Your task to perform on an android device: turn off location history Image 0: 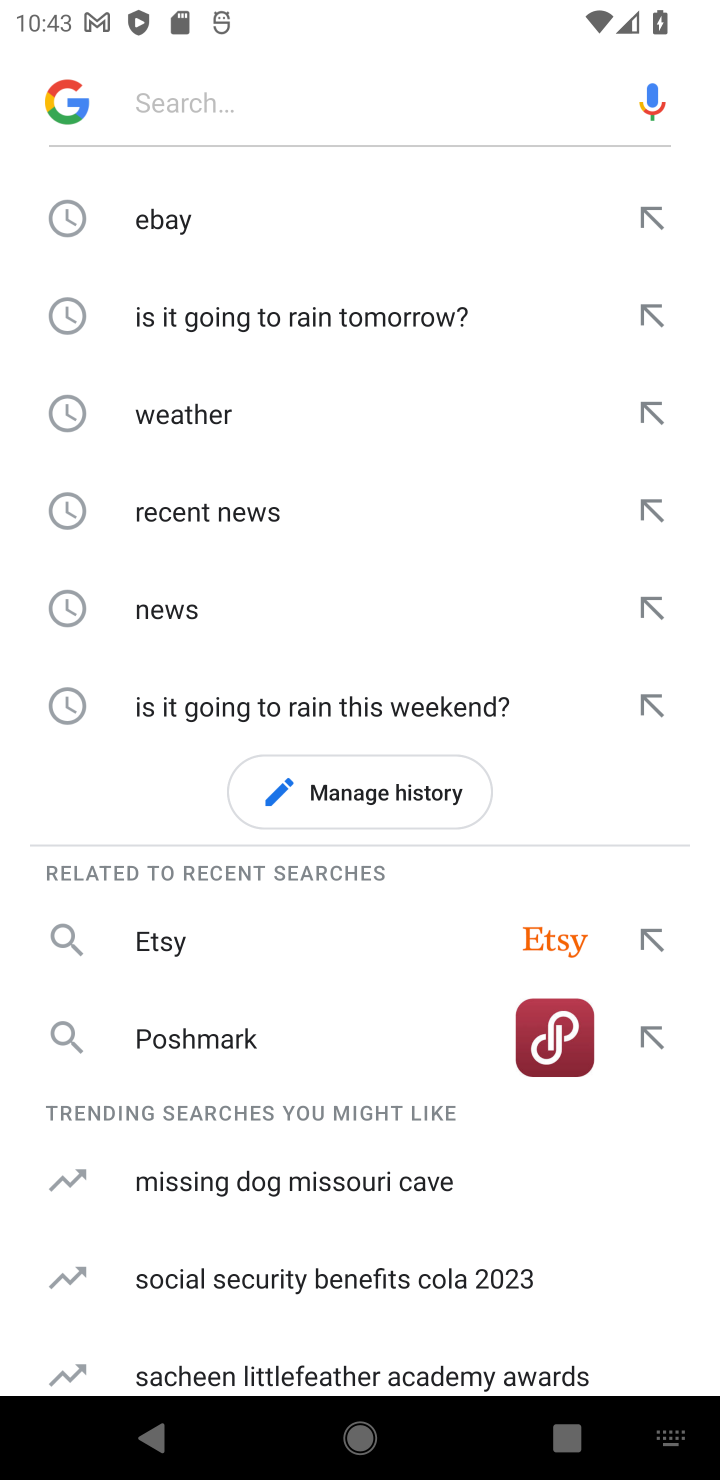
Step 0: press home button
Your task to perform on an android device: turn off location history Image 1: 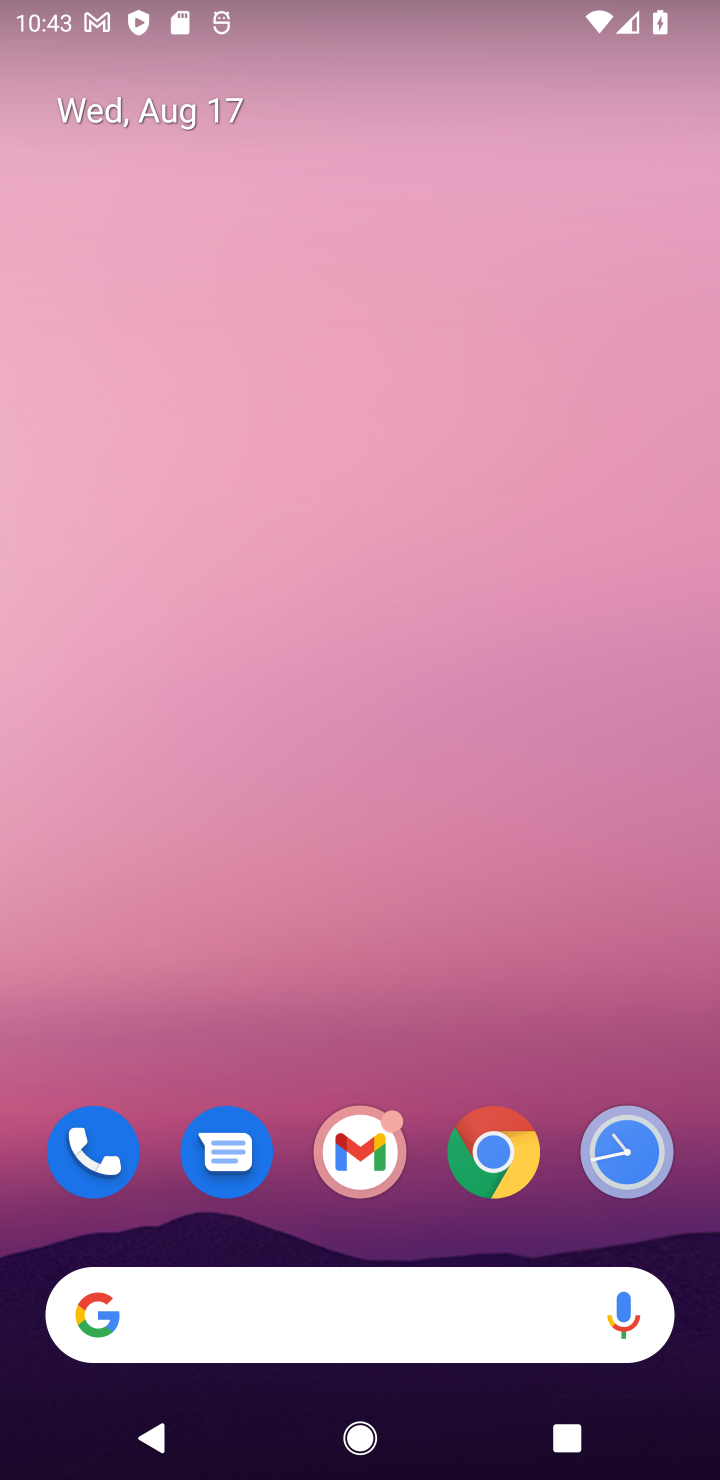
Step 1: drag from (581, 946) to (373, 0)
Your task to perform on an android device: turn off location history Image 2: 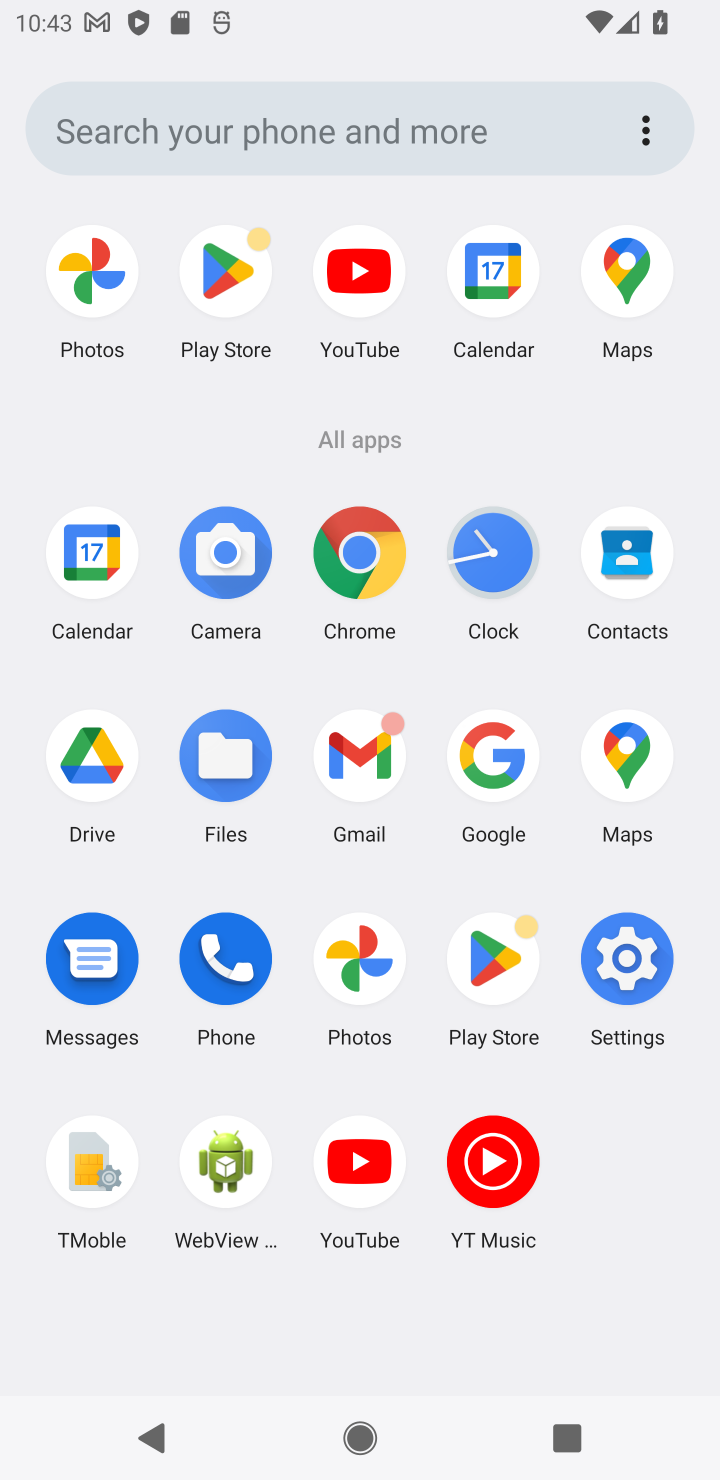
Step 2: click (646, 974)
Your task to perform on an android device: turn off location history Image 3: 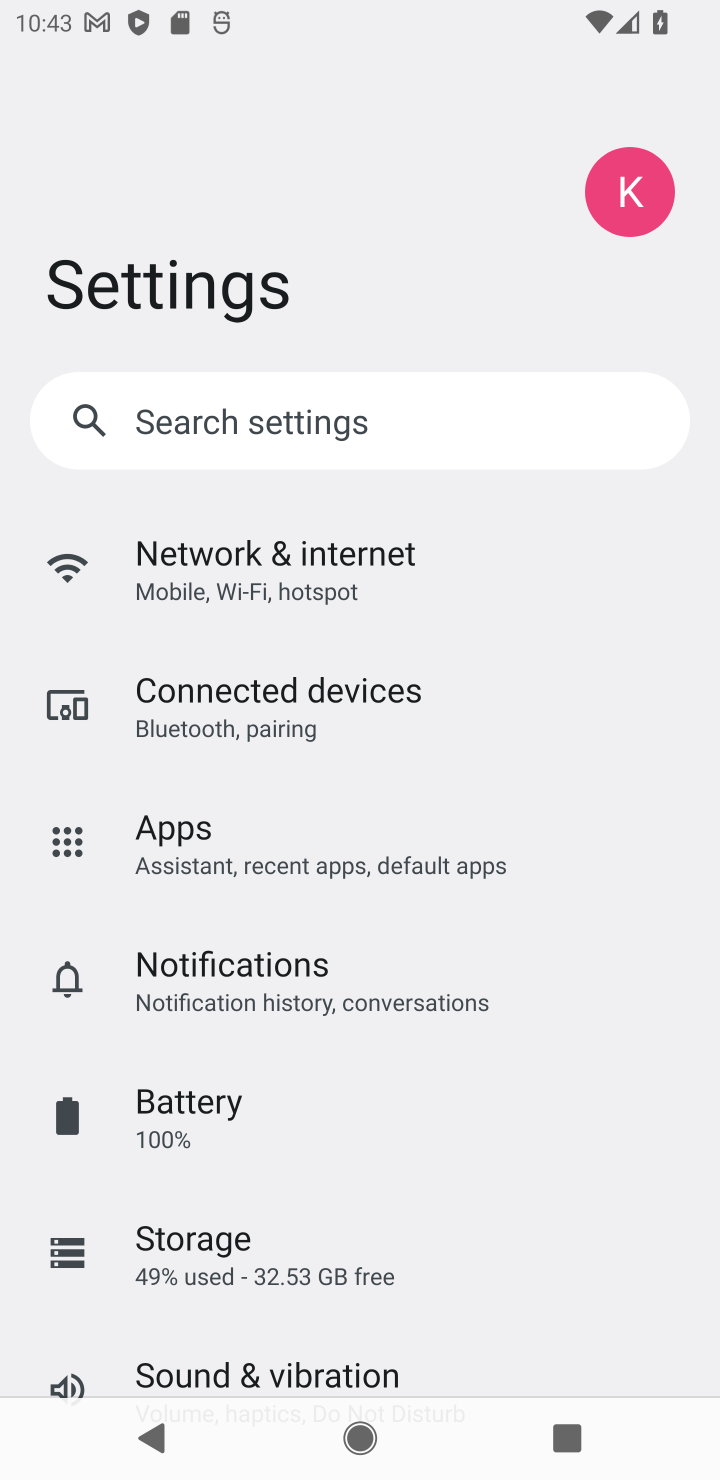
Step 3: drag from (360, 1258) to (261, 288)
Your task to perform on an android device: turn off location history Image 4: 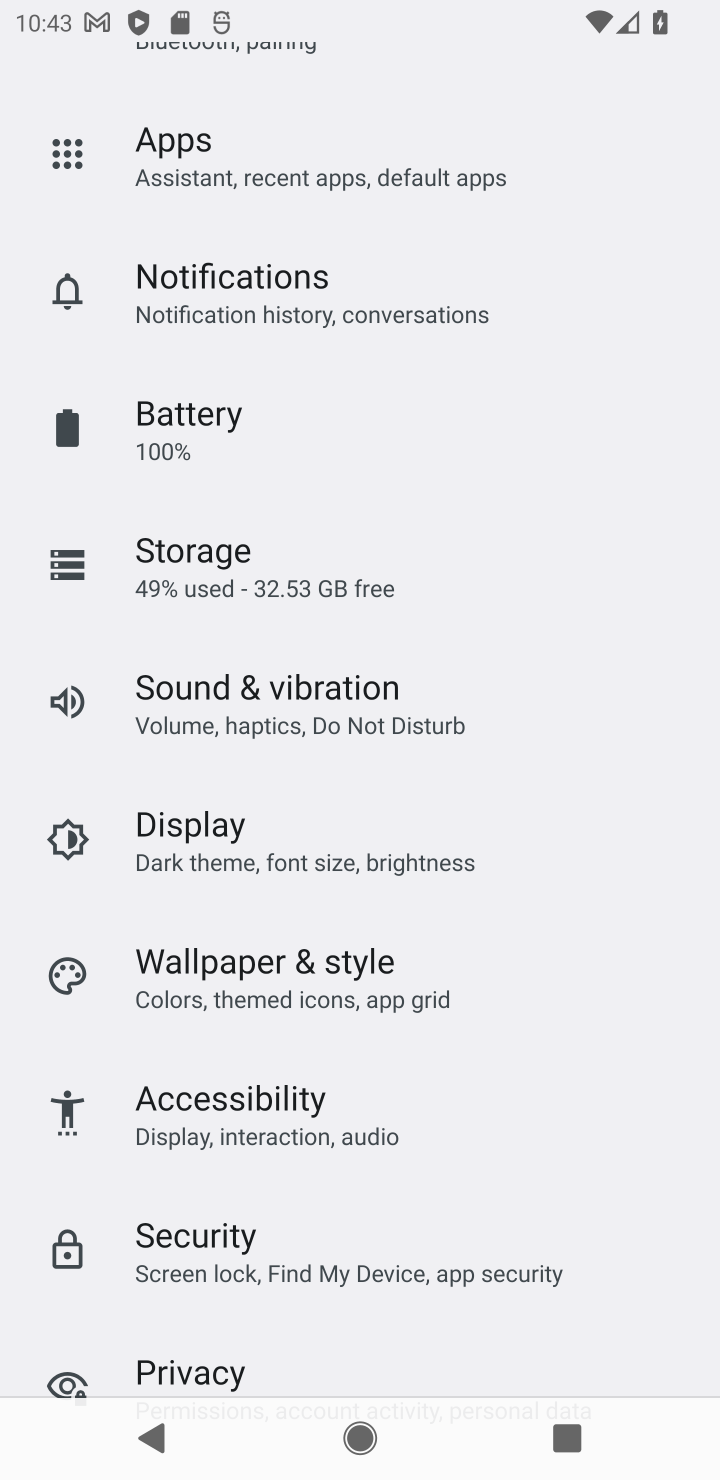
Step 4: drag from (263, 1125) to (248, 54)
Your task to perform on an android device: turn off location history Image 5: 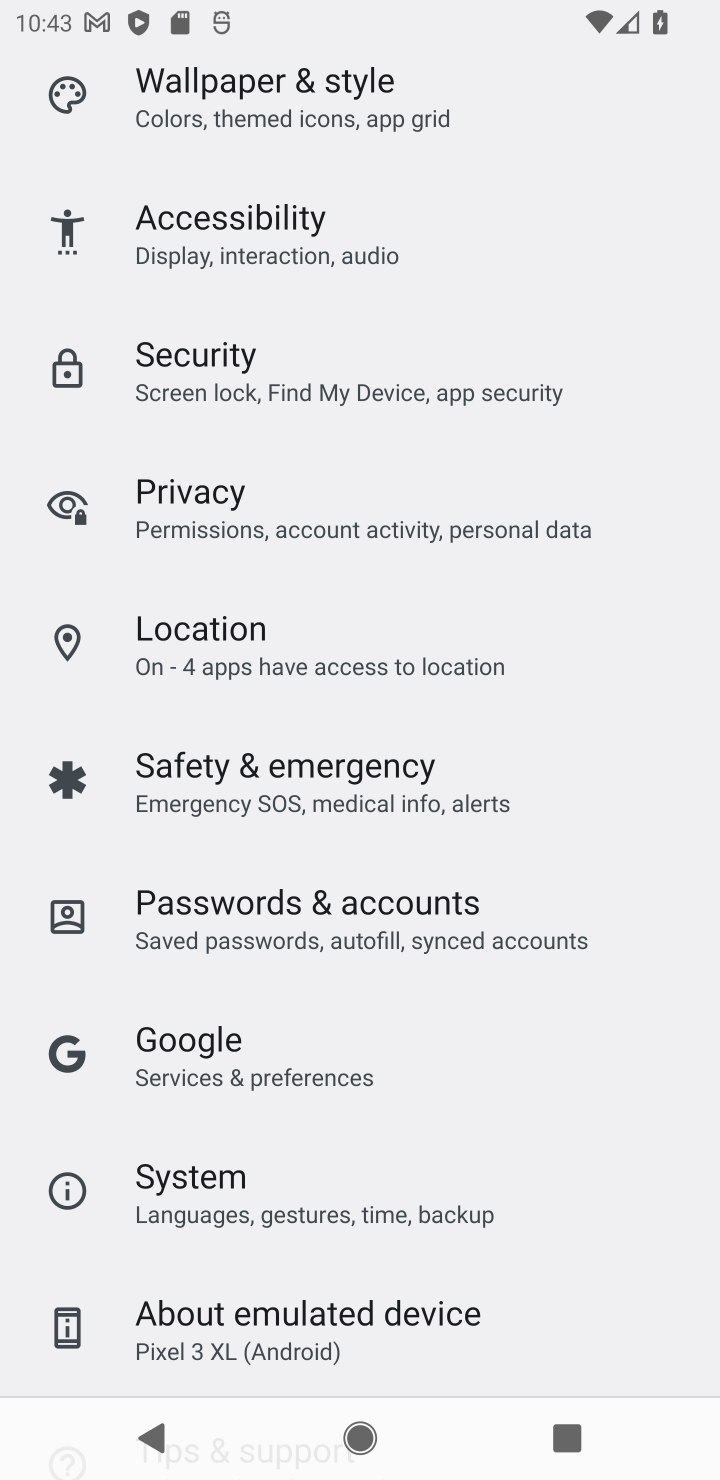
Step 5: click (237, 649)
Your task to perform on an android device: turn off location history Image 6: 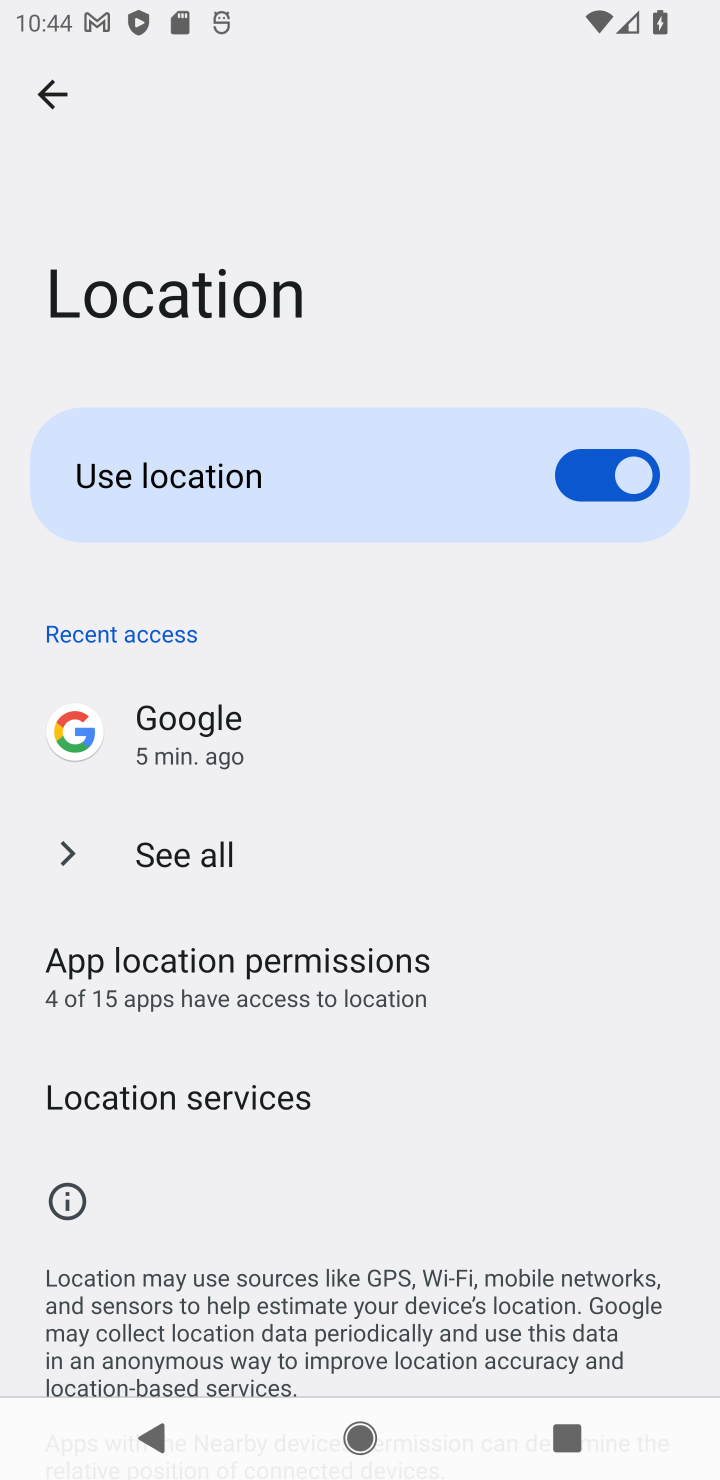
Step 6: click (192, 1106)
Your task to perform on an android device: turn off location history Image 7: 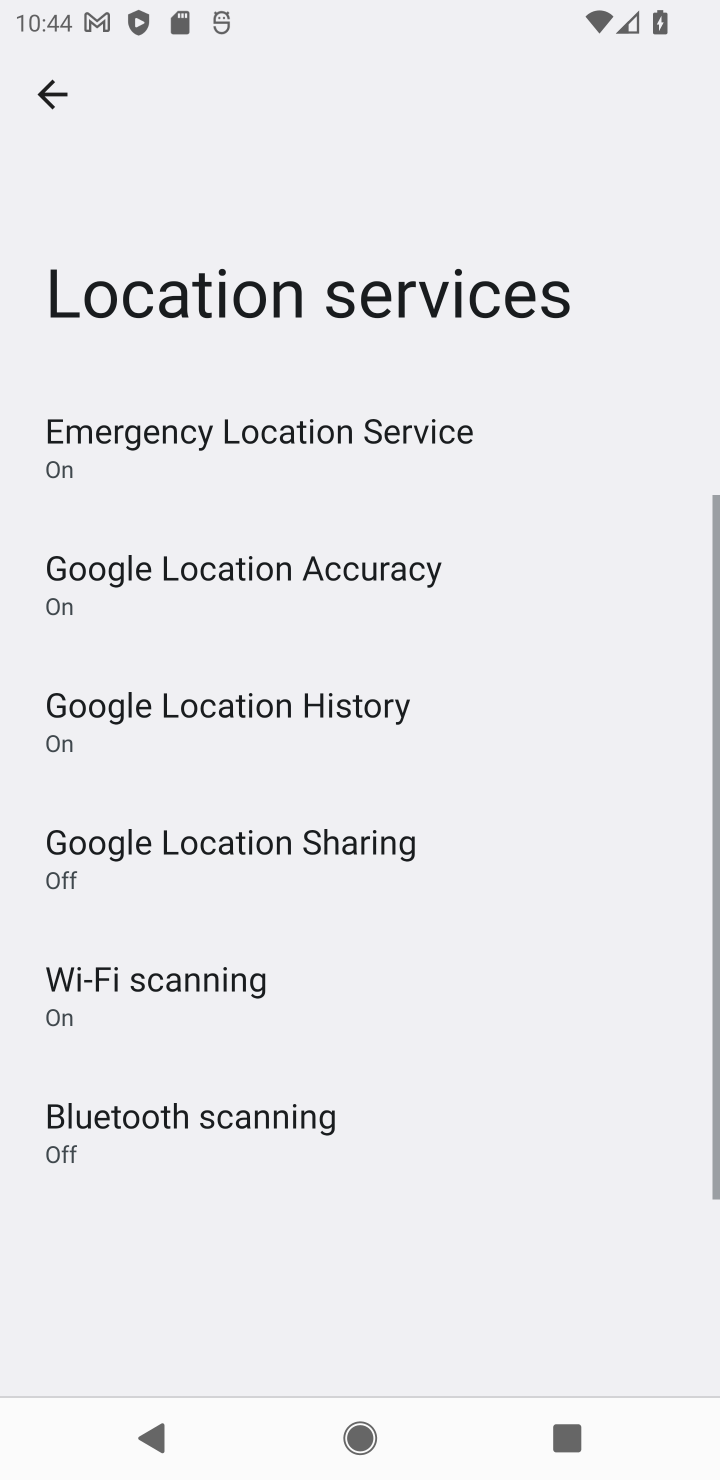
Step 7: click (318, 733)
Your task to perform on an android device: turn off location history Image 8: 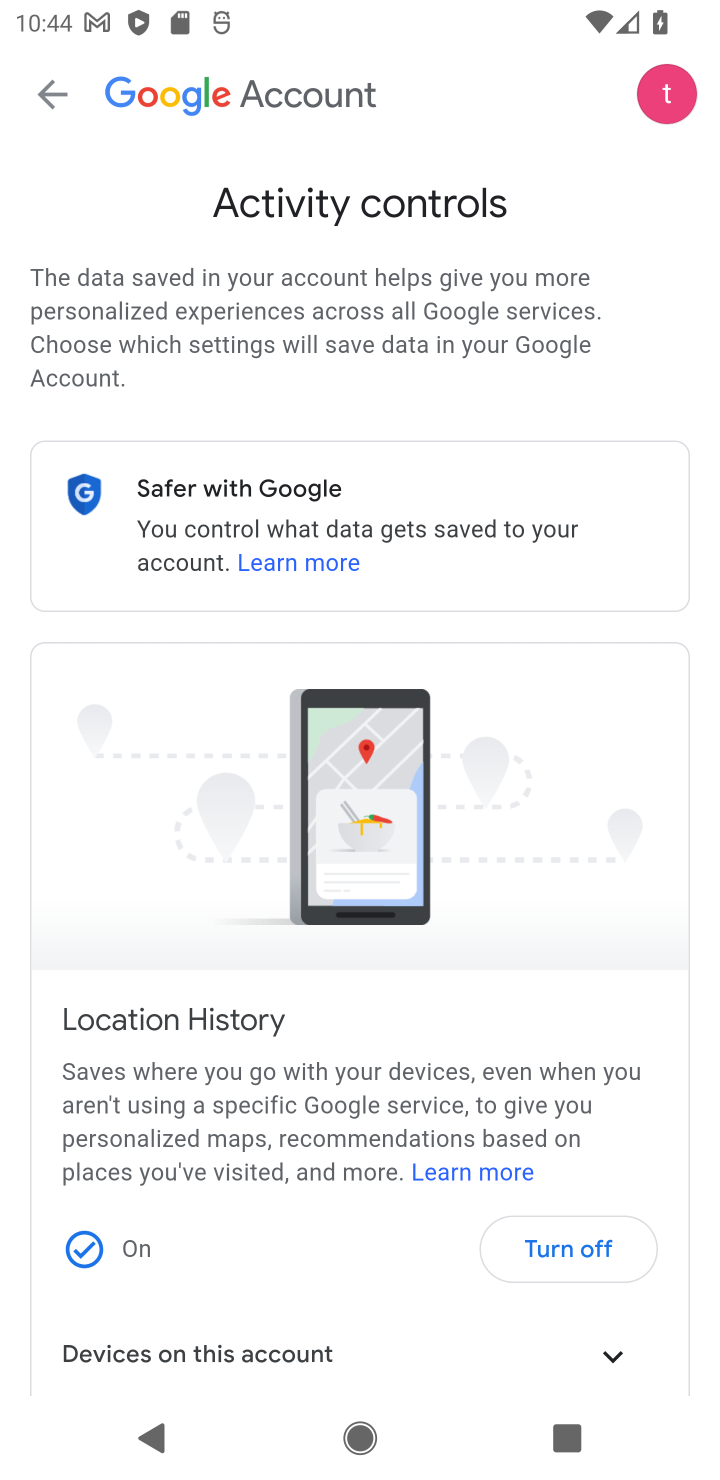
Step 8: task complete